Your task to perform on an android device: empty trash in google photos Image 0: 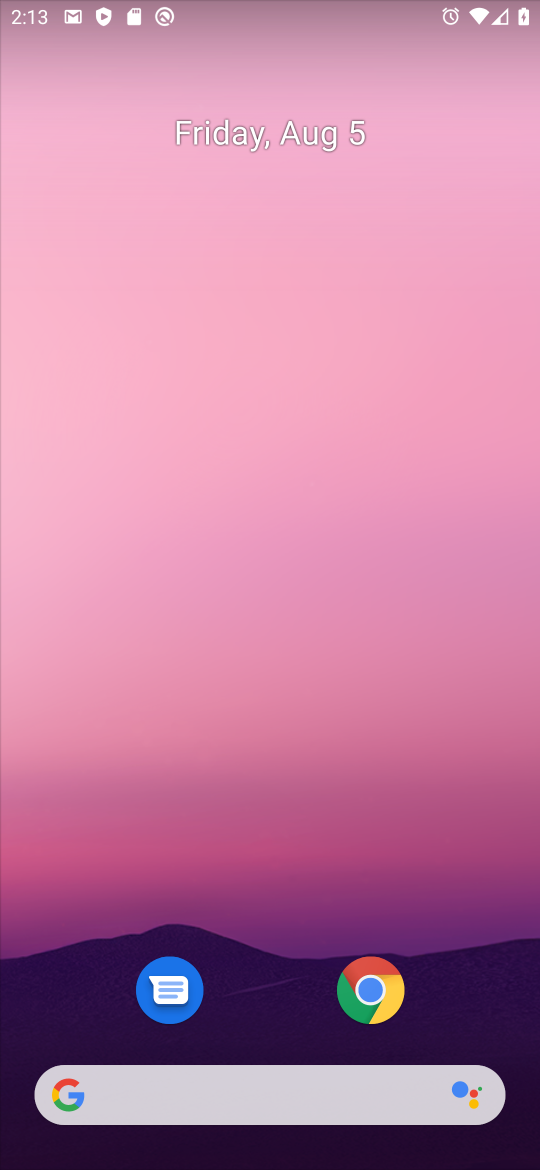
Step 0: drag from (381, 35) to (259, 47)
Your task to perform on an android device: empty trash in google photos Image 1: 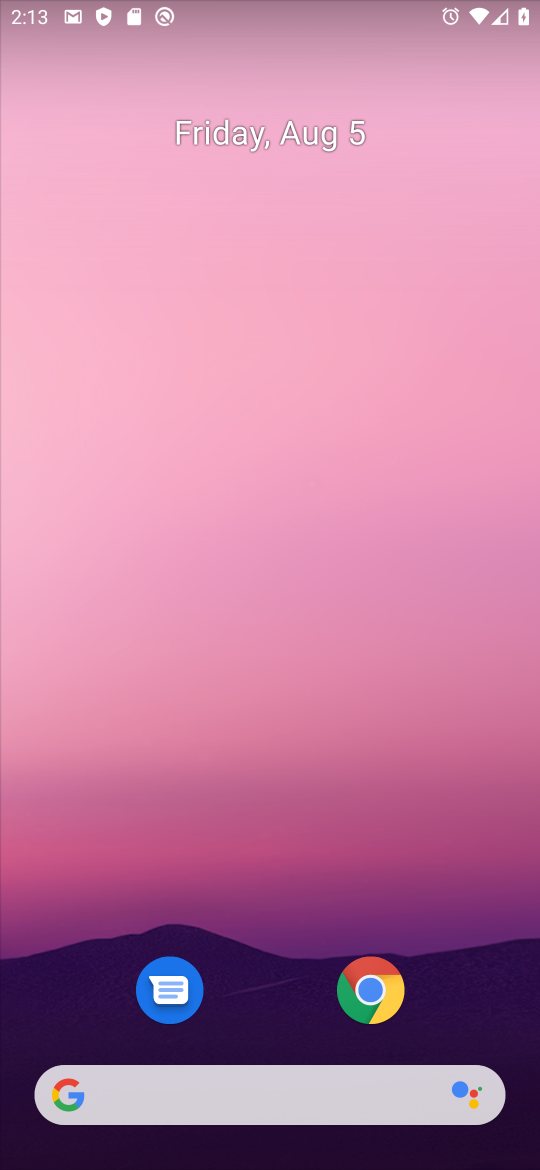
Step 1: drag from (298, 1093) to (293, 74)
Your task to perform on an android device: empty trash in google photos Image 2: 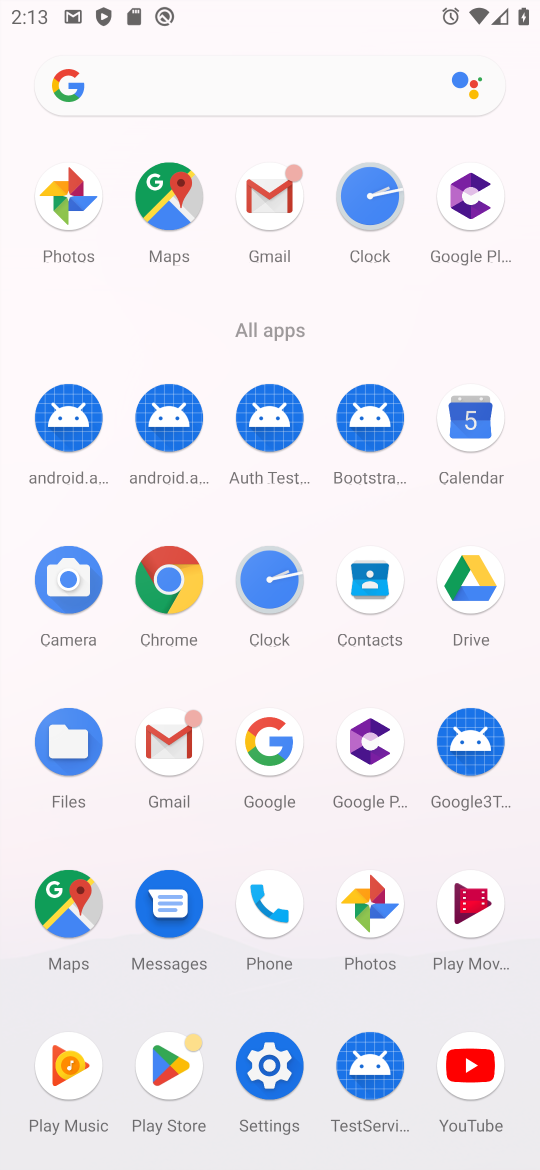
Step 2: click (367, 896)
Your task to perform on an android device: empty trash in google photos Image 3: 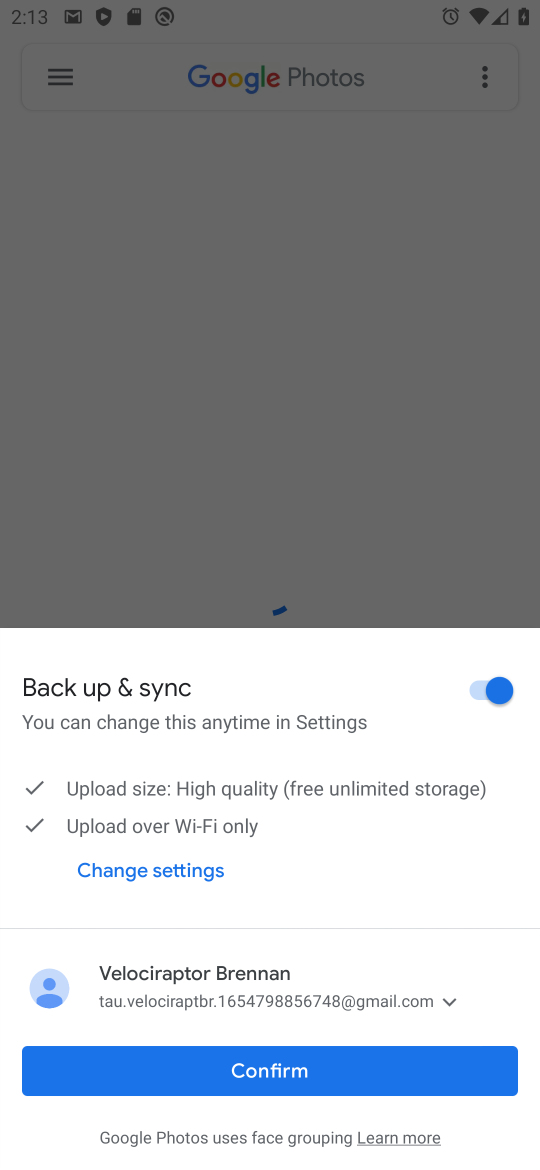
Step 3: click (343, 1076)
Your task to perform on an android device: empty trash in google photos Image 4: 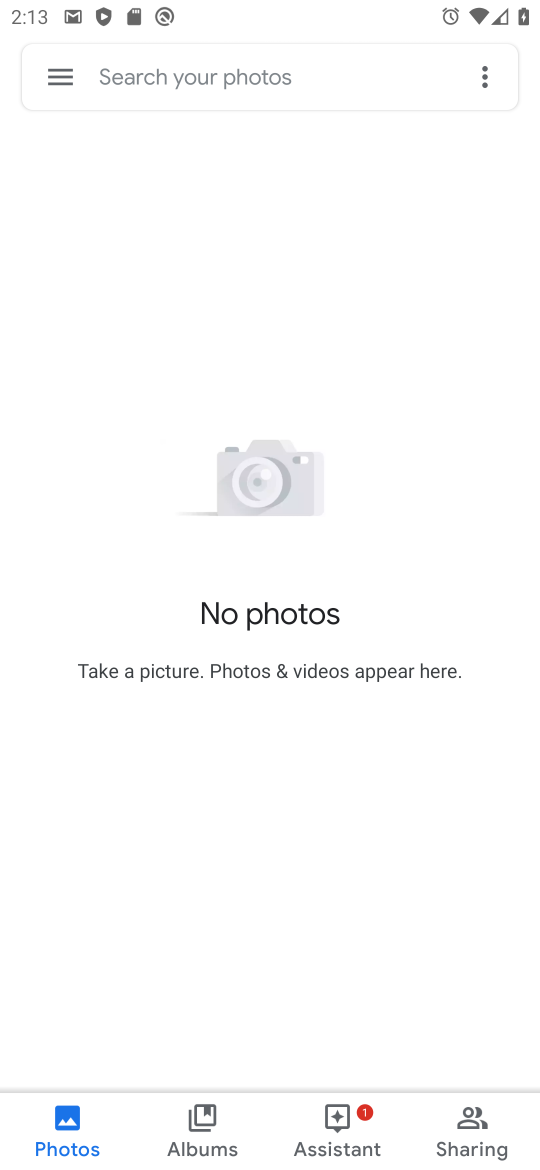
Step 4: click (44, 88)
Your task to perform on an android device: empty trash in google photos Image 5: 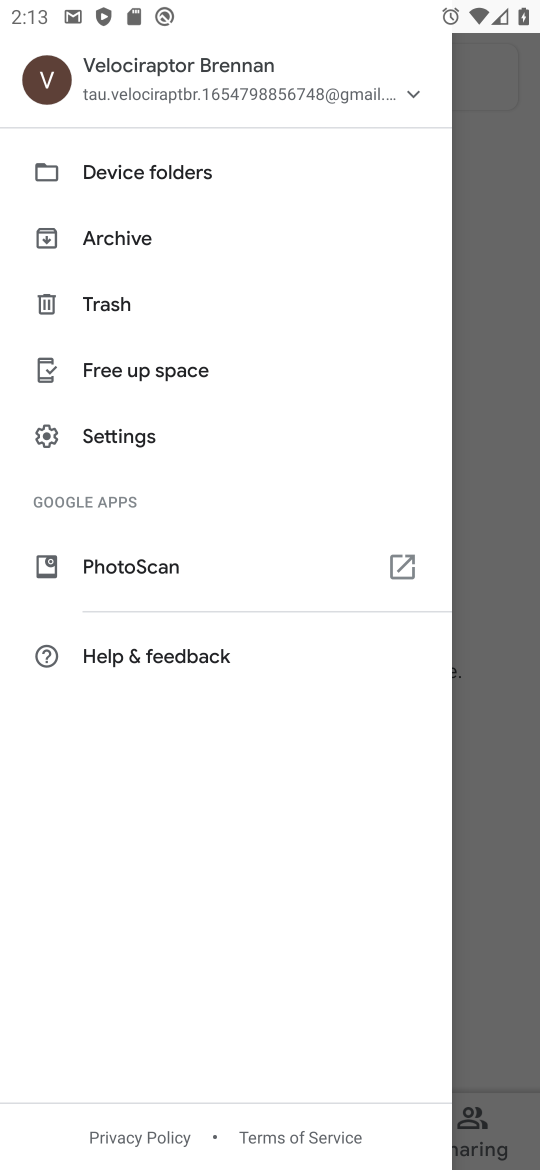
Step 5: click (106, 299)
Your task to perform on an android device: empty trash in google photos Image 6: 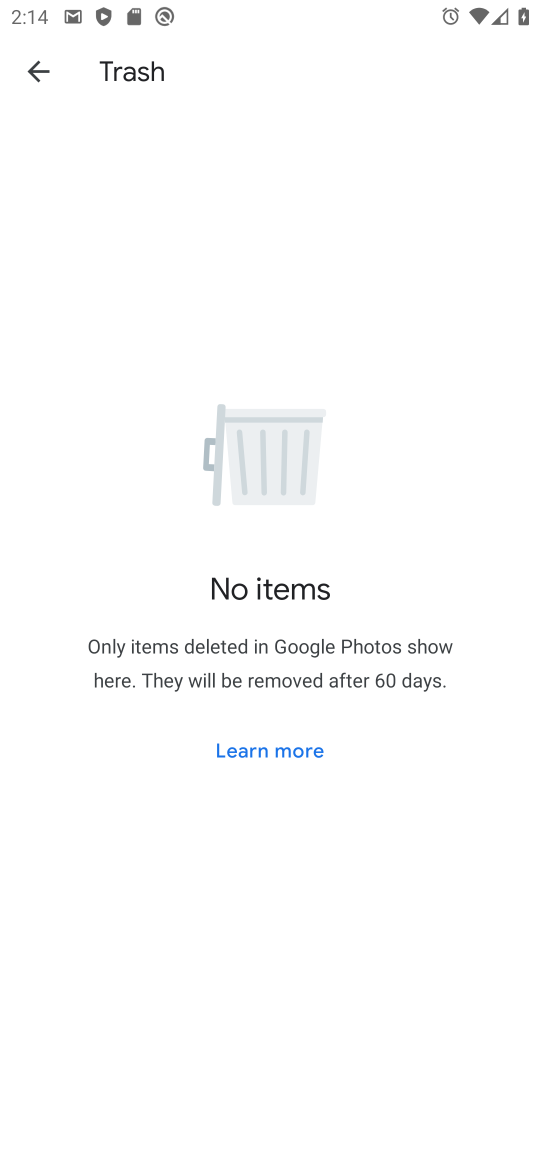
Step 6: task complete